Your task to perform on an android device: Show me popular games on the Play Store Image 0: 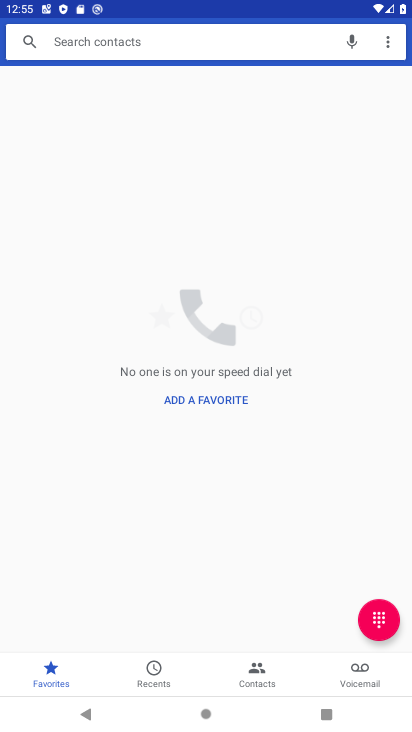
Step 0: press home button
Your task to perform on an android device: Show me popular games on the Play Store Image 1: 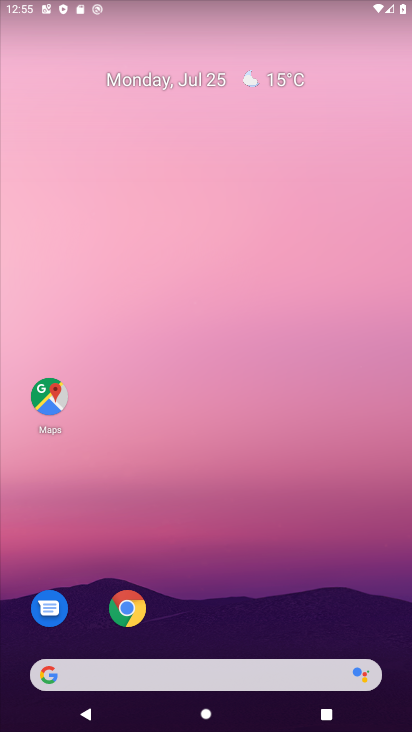
Step 1: drag from (282, 593) to (308, 197)
Your task to perform on an android device: Show me popular games on the Play Store Image 2: 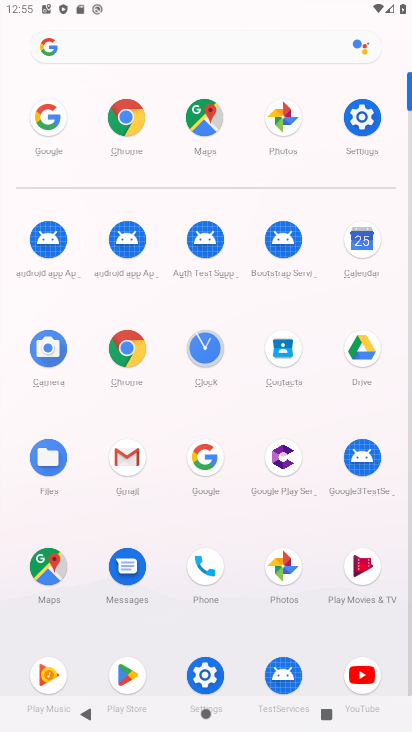
Step 2: click (120, 668)
Your task to perform on an android device: Show me popular games on the Play Store Image 3: 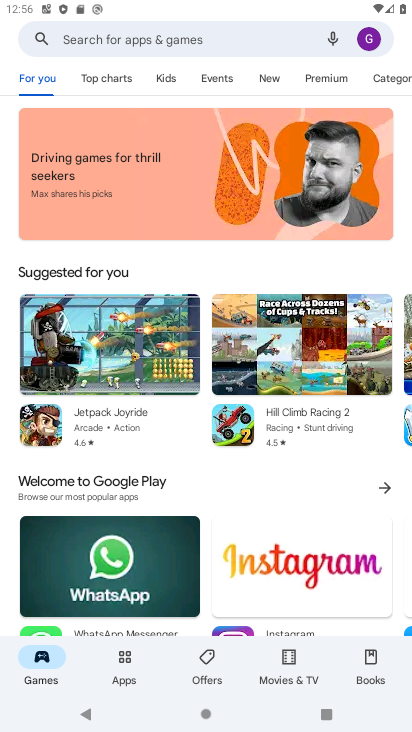
Step 3: drag from (186, 479) to (237, 239)
Your task to perform on an android device: Show me popular games on the Play Store Image 4: 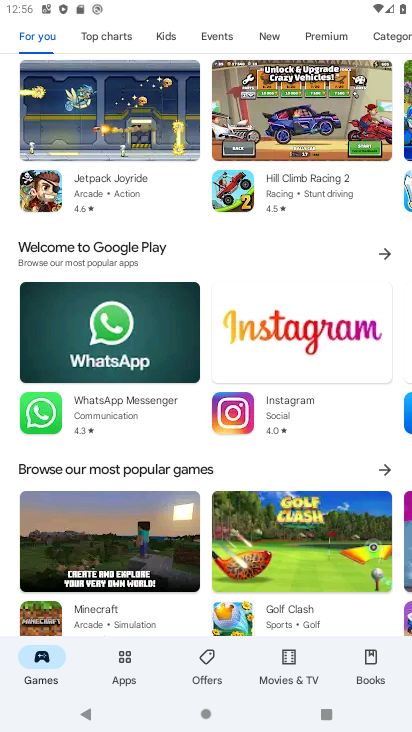
Step 4: click (200, 467)
Your task to perform on an android device: Show me popular games on the Play Store Image 5: 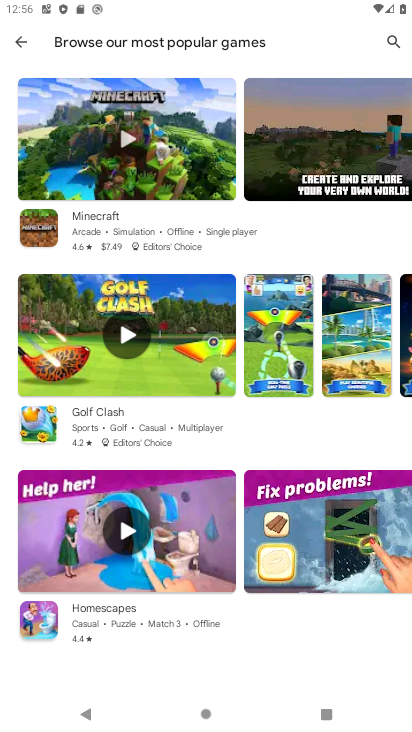
Step 5: task complete